Your task to perform on an android device: Open Youtube and go to "Your channel" Image 0: 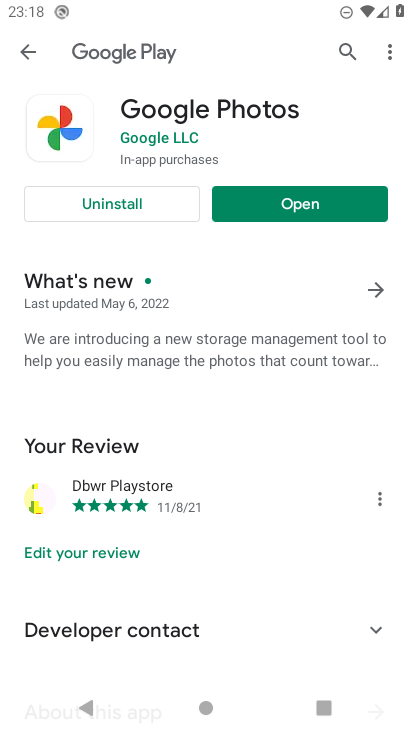
Step 0: press home button
Your task to perform on an android device: Open Youtube and go to "Your channel" Image 1: 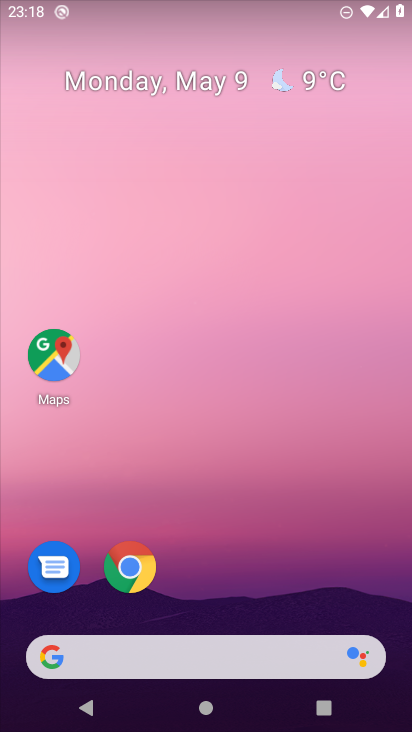
Step 1: drag from (212, 607) to (208, 38)
Your task to perform on an android device: Open Youtube and go to "Your channel" Image 2: 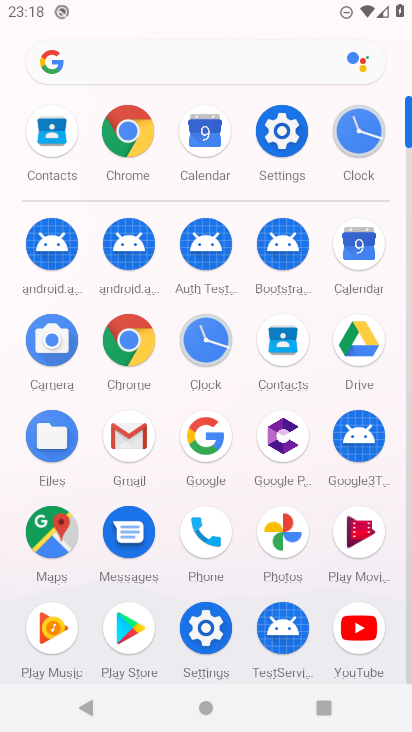
Step 2: click (354, 620)
Your task to perform on an android device: Open Youtube and go to "Your channel" Image 3: 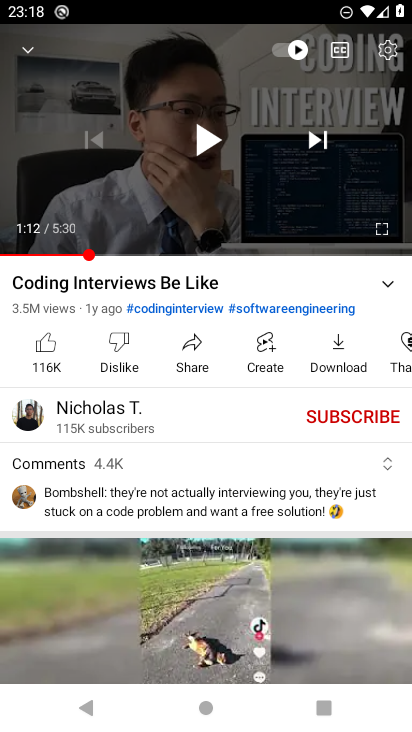
Step 3: press back button
Your task to perform on an android device: Open Youtube and go to "Your channel" Image 4: 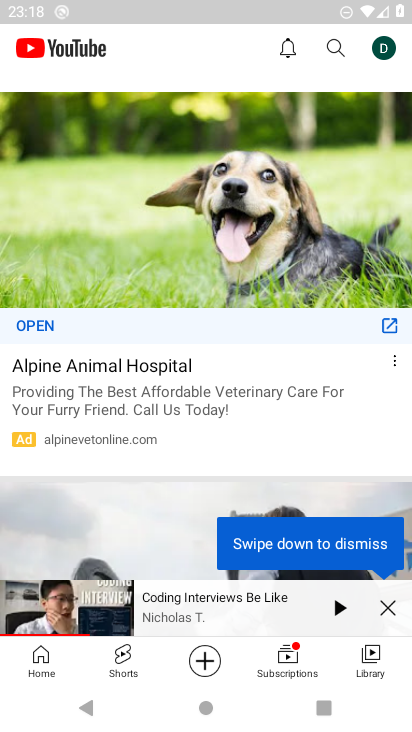
Step 4: click (393, 605)
Your task to perform on an android device: Open Youtube and go to "Your channel" Image 5: 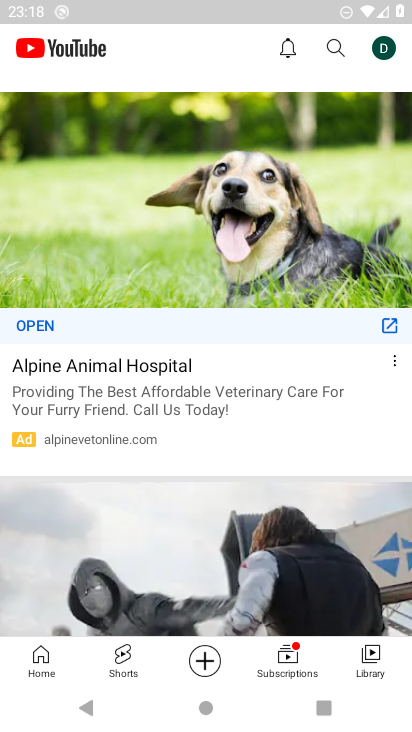
Step 5: click (379, 39)
Your task to perform on an android device: Open Youtube and go to "Your channel" Image 6: 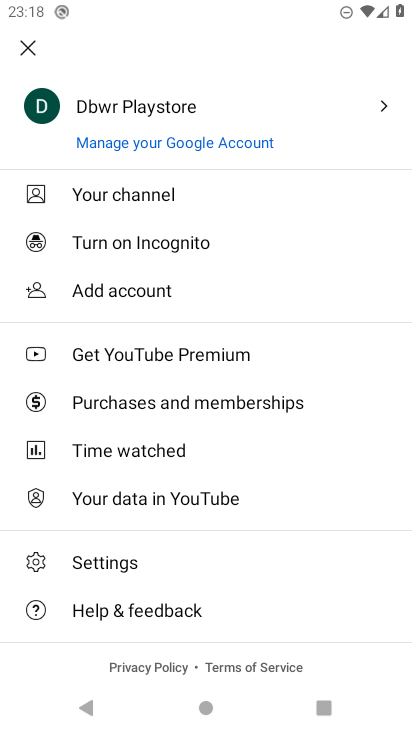
Step 6: click (123, 195)
Your task to perform on an android device: Open Youtube and go to "Your channel" Image 7: 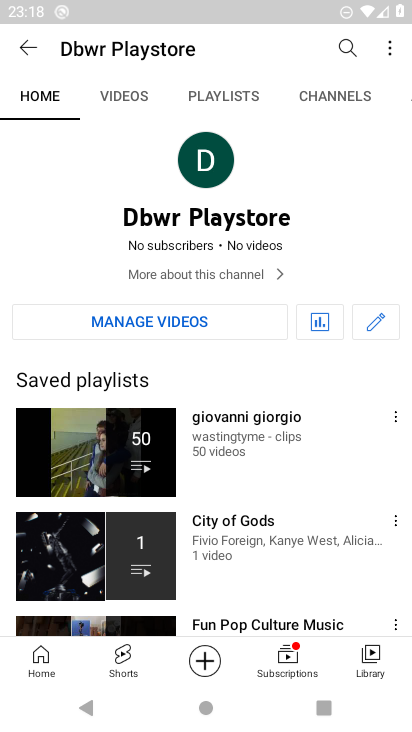
Step 7: task complete